Your task to perform on an android device: Search for vegetarian restaurants on Maps Image 0: 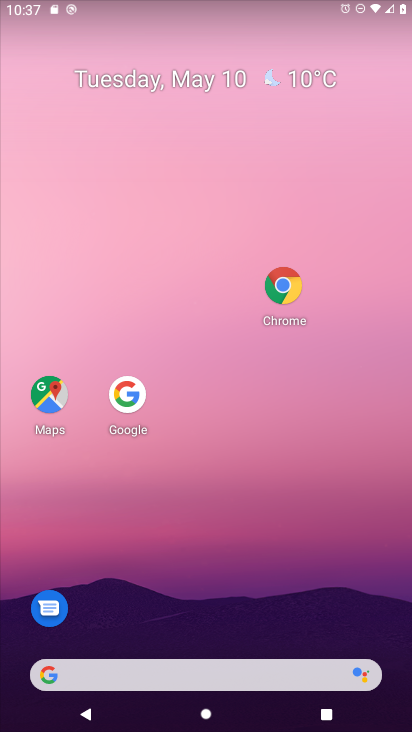
Step 0: drag from (234, 665) to (376, 182)
Your task to perform on an android device: Search for vegetarian restaurants on Maps Image 1: 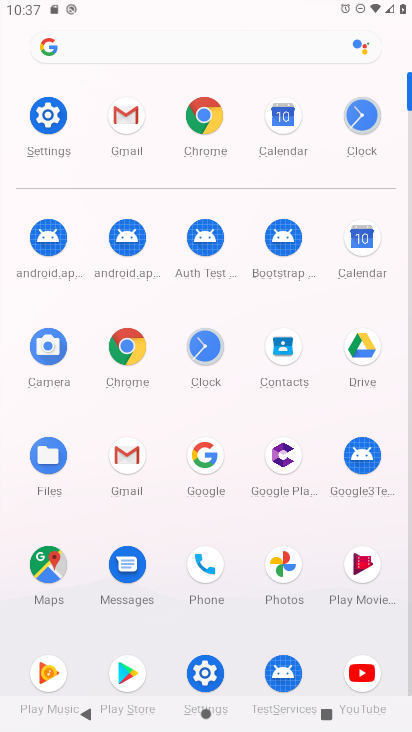
Step 1: click (48, 558)
Your task to perform on an android device: Search for vegetarian restaurants on Maps Image 2: 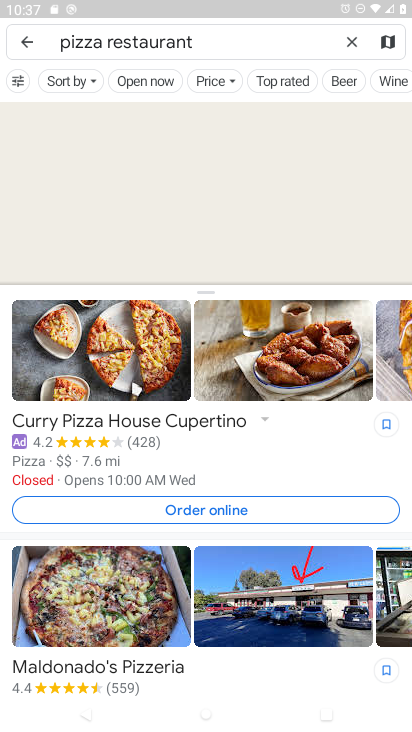
Step 2: click (347, 42)
Your task to perform on an android device: Search for vegetarian restaurants on Maps Image 3: 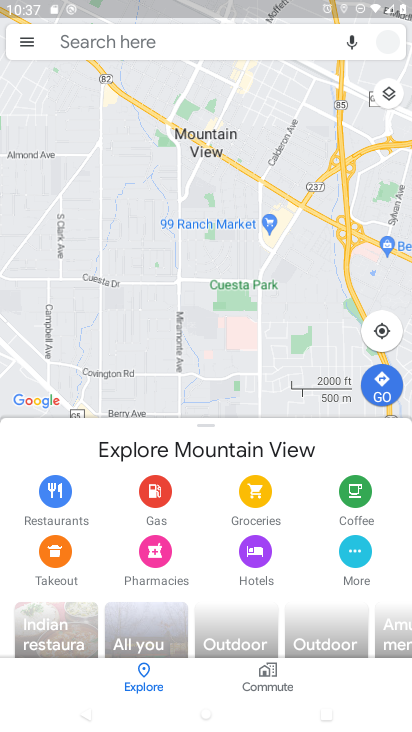
Step 3: click (225, 42)
Your task to perform on an android device: Search for vegetarian restaurants on Maps Image 4: 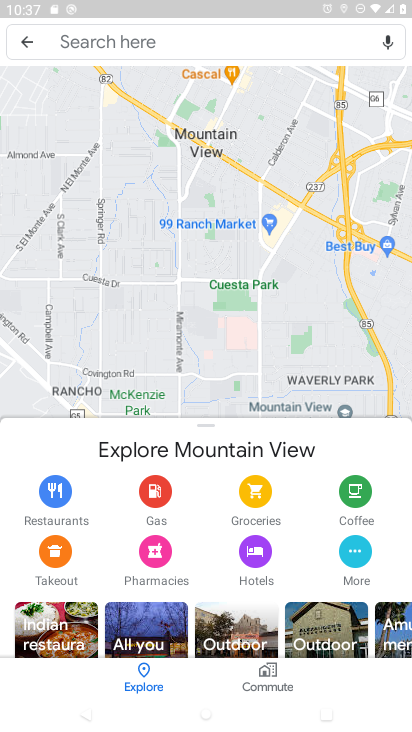
Step 4: click (98, 45)
Your task to perform on an android device: Search for vegetarian restaurants on Maps Image 5: 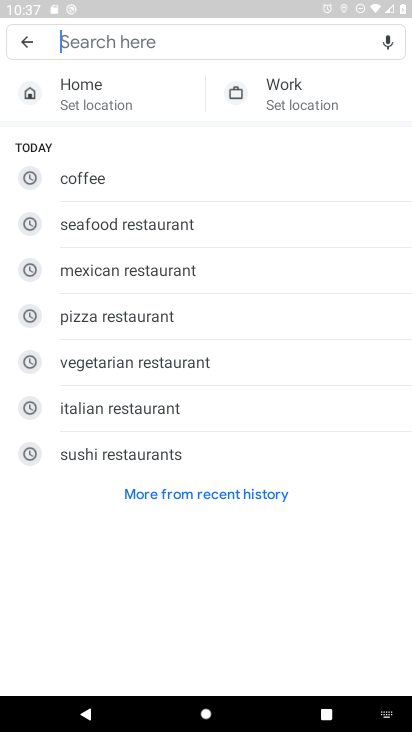
Step 5: click (99, 365)
Your task to perform on an android device: Search for vegetarian restaurants on Maps Image 6: 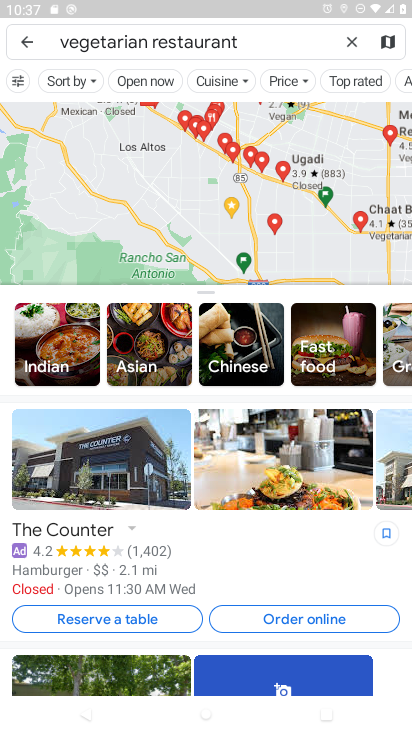
Step 6: task complete